Your task to perform on an android device: open sync settings in chrome Image 0: 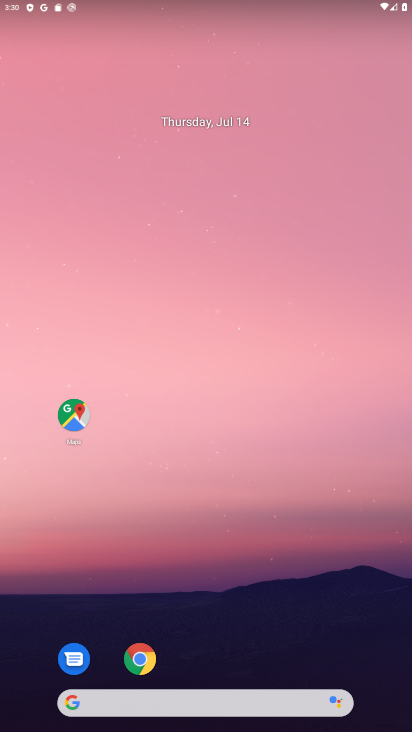
Step 0: drag from (336, 604) to (334, 124)
Your task to perform on an android device: open sync settings in chrome Image 1: 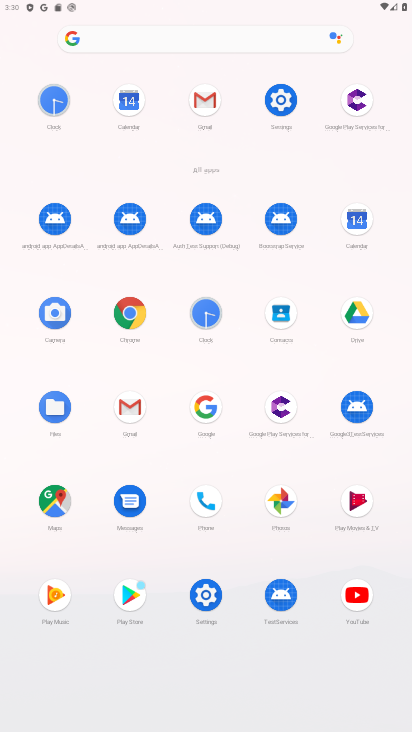
Step 1: click (143, 311)
Your task to perform on an android device: open sync settings in chrome Image 2: 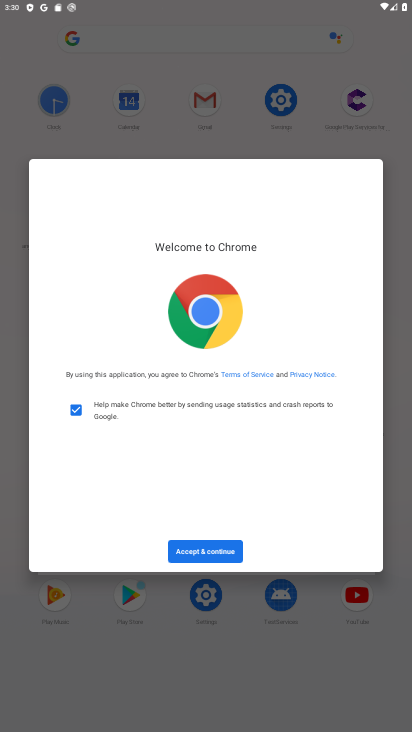
Step 2: click (201, 551)
Your task to perform on an android device: open sync settings in chrome Image 3: 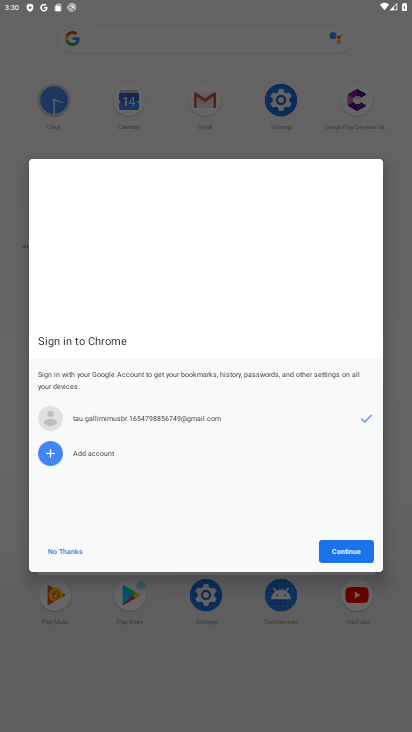
Step 3: click (344, 552)
Your task to perform on an android device: open sync settings in chrome Image 4: 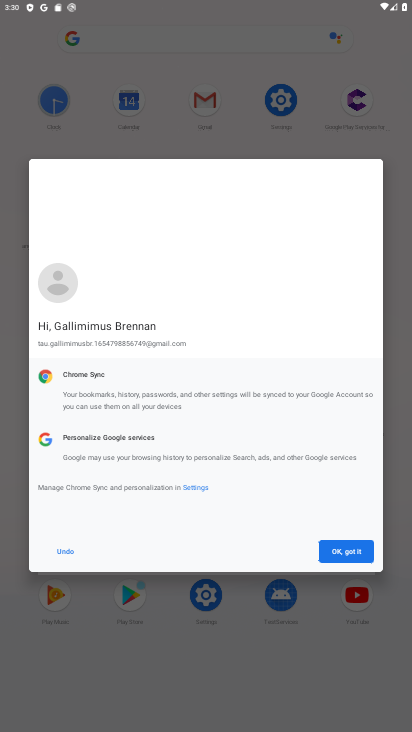
Step 4: click (344, 552)
Your task to perform on an android device: open sync settings in chrome Image 5: 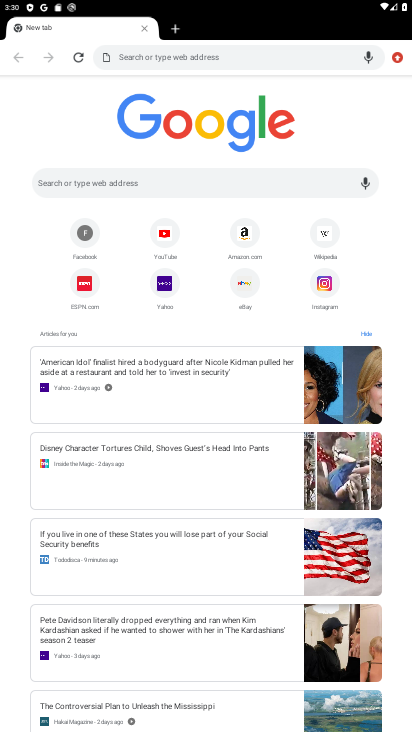
Step 5: click (394, 58)
Your task to perform on an android device: open sync settings in chrome Image 6: 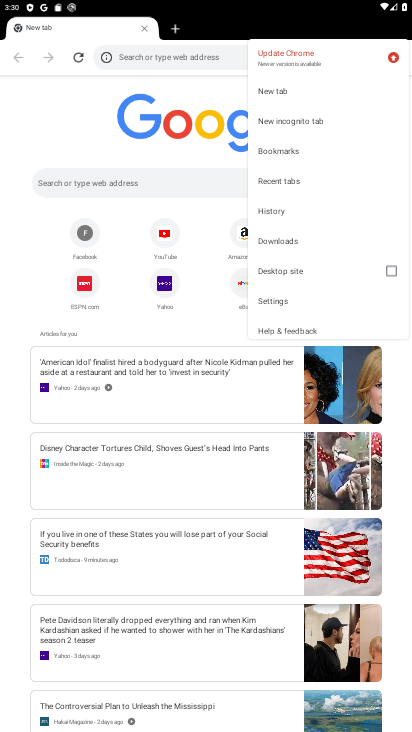
Step 6: click (287, 300)
Your task to perform on an android device: open sync settings in chrome Image 7: 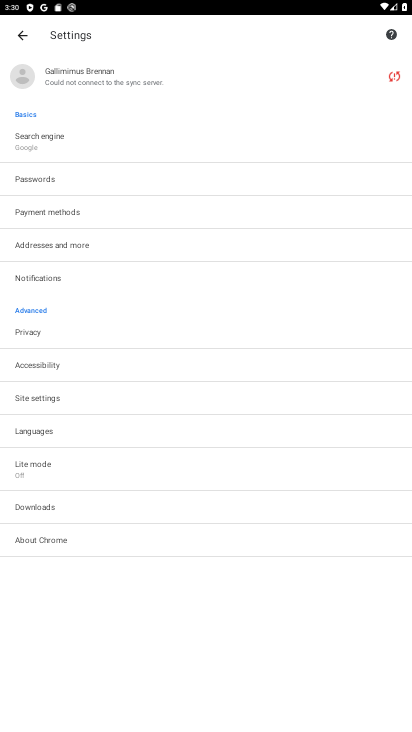
Step 7: click (146, 399)
Your task to perform on an android device: open sync settings in chrome Image 8: 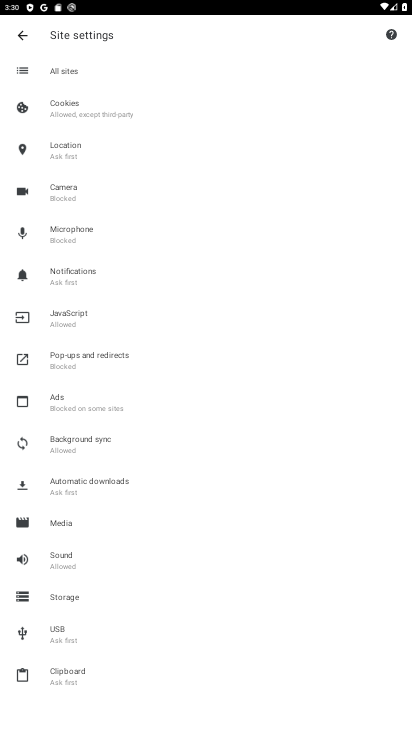
Step 8: drag from (231, 461) to (239, 388)
Your task to perform on an android device: open sync settings in chrome Image 9: 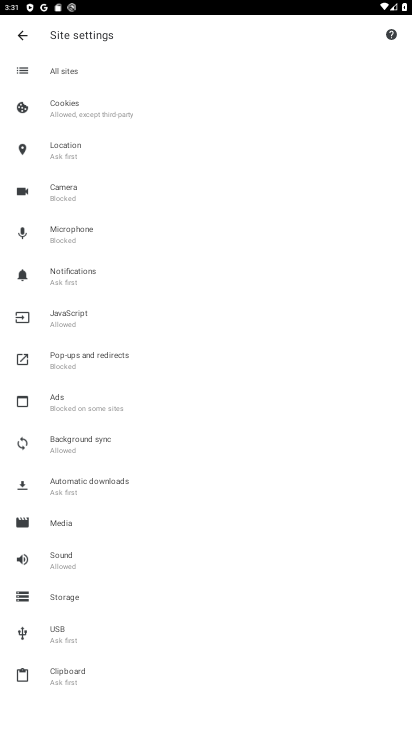
Step 9: click (216, 433)
Your task to perform on an android device: open sync settings in chrome Image 10: 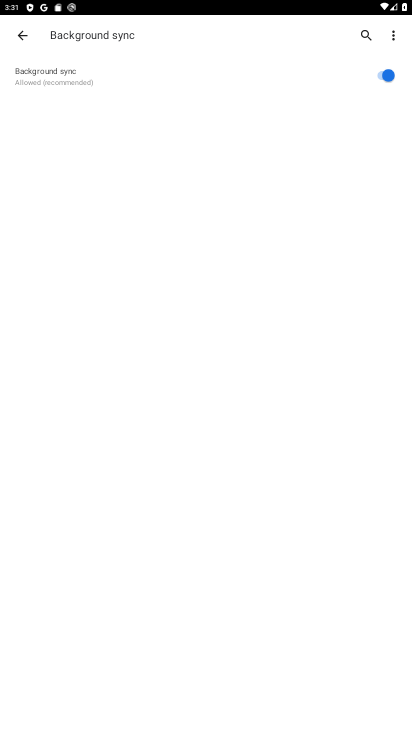
Step 10: task complete